Your task to perform on an android device: Open Google Chrome and open the bookmarks view Image 0: 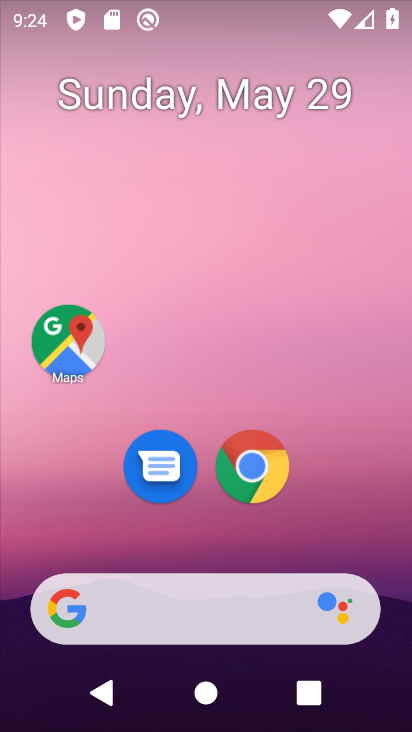
Step 0: click (295, 488)
Your task to perform on an android device: Open Google Chrome and open the bookmarks view Image 1: 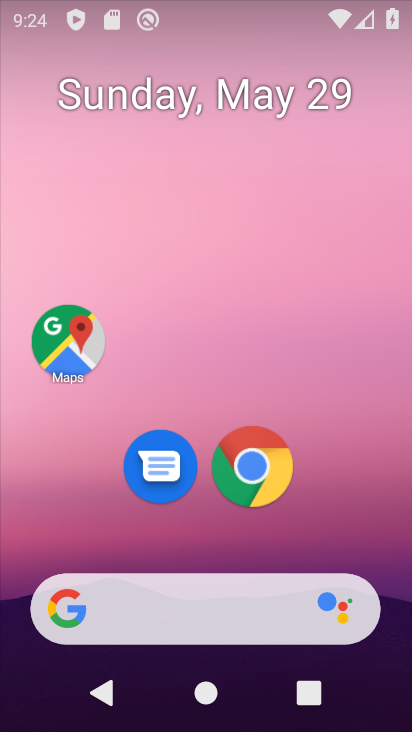
Step 1: click (259, 481)
Your task to perform on an android device: Open Google Chrome and open the bookmarks view Image 2: 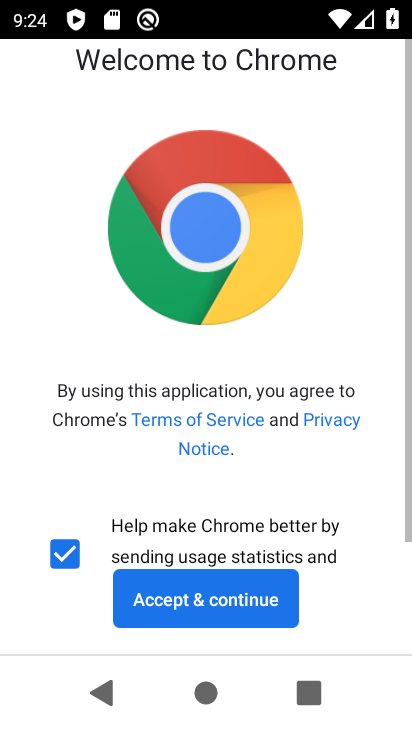
Step 2: click (265, 605)
Your task to perform on an android device: Open Google Chrome and open the bookmarks view Image 3: 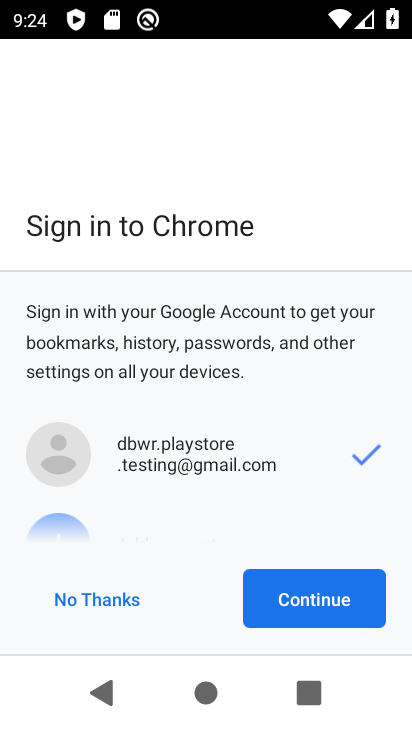
Step 3: click (283, 608)
Your task to perform on an android device: Open Google Chrome and open the bookmarks view Image 4: 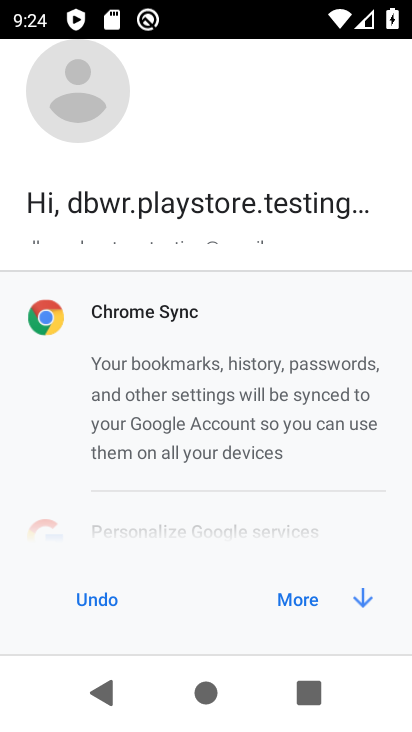
Step 4: click (304, 590)
Your task to perform on an android device: Open Google Chrome and open the bookmarks view Image 5: 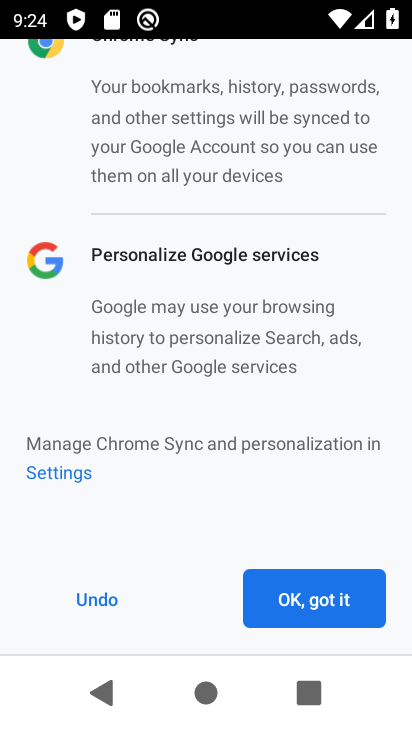
Step 5: click (304, 590)
Your task to perform on an android device: Open Google Chrome and open the bookmarks view Image 6: 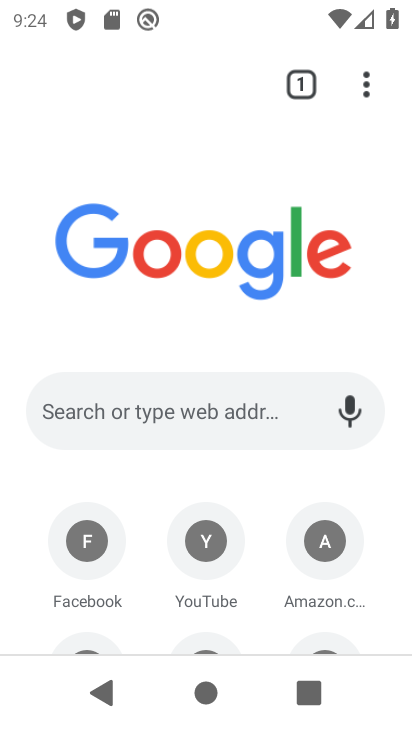
Step 6: task complete